Your task to perform on an android device: move an email to a new category in the gmail app Image 0: 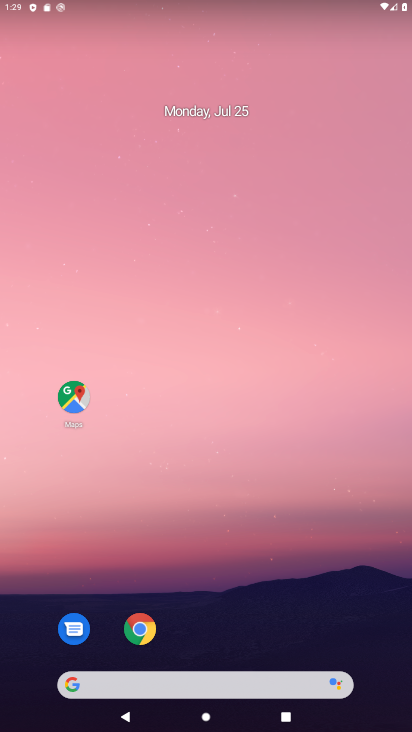
Step 0: drag from (271, 635) to (276, 3)
Your task to perform on an android device: move an email to a new category in the gmail app Image 1: 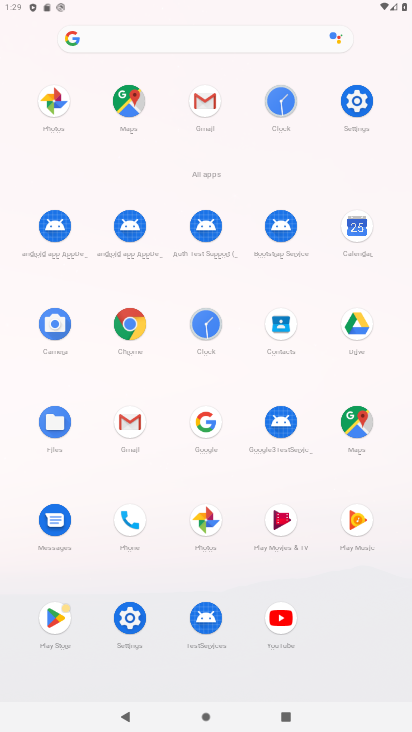
Step 1: click (207, 97)
Your task to perform on an android device: move an email to a new category in the gmail app Image 2: 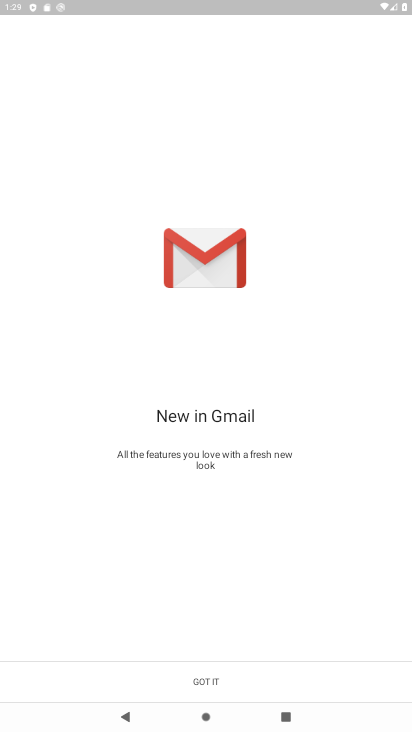
Step 2: click (206, 686)
Your task to perform on an android device: move an email to a new category in the gmail app Image 3: 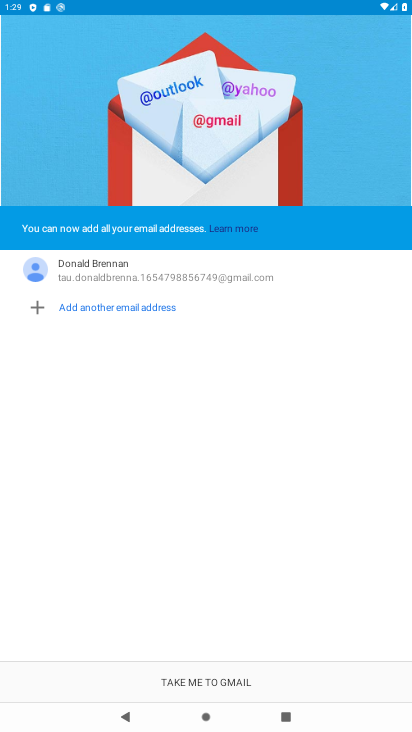
Step 3: click (195, 683)
Your task to perform on an android device: move an email to a new category in the gmail app Image 4: 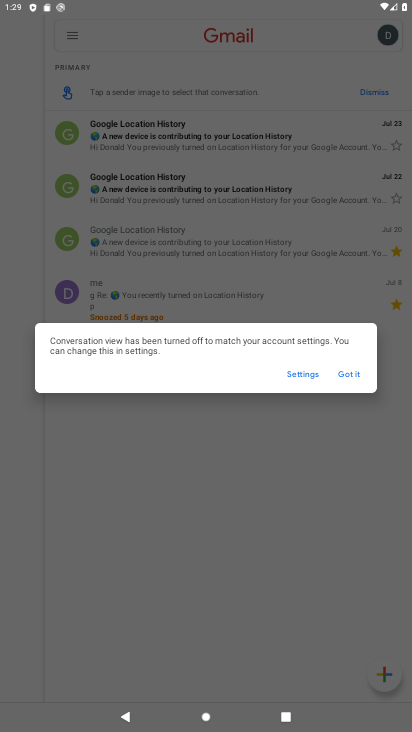
Step 4: click (348, 374)
Your task to perform on an android device: move an email to a new category in the gmail app Image 5: 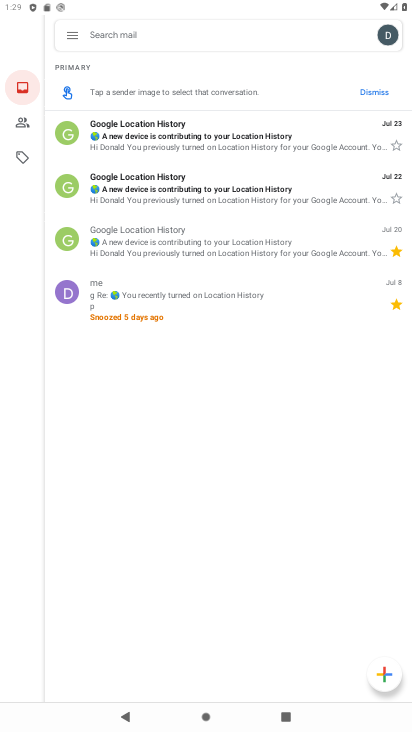
Step 5: click (228, 131)
Your task to perform on an android device: move an email to a new category in the gmail app Image 6: 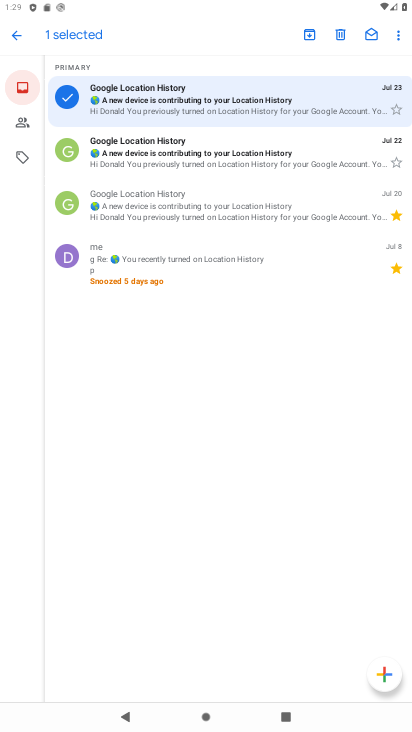
Step 6: click (396, 113)
Your task to perform on an android device: move an email to a new category in the gmail app Image 7: 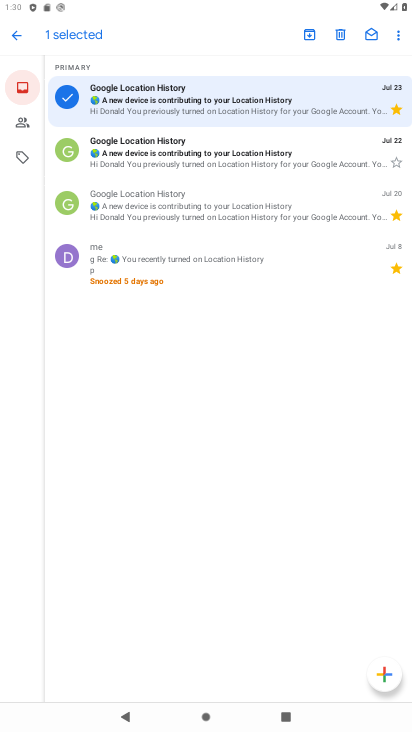
Step 7: task complete